Your task to perform on an android device: set an alarm Image 0: 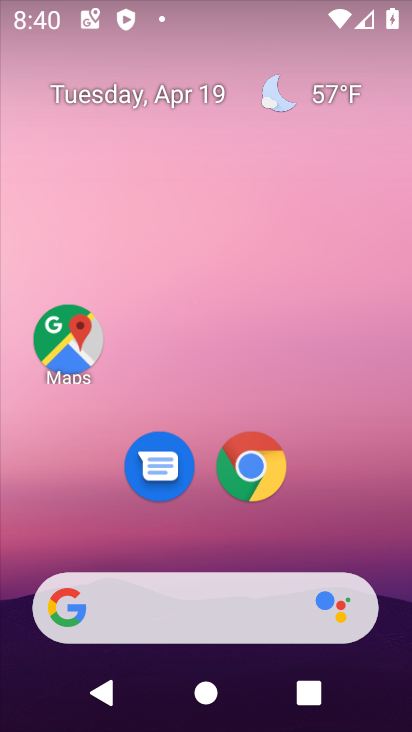
Step 0: drag from (207, 722) to (207, 90)
Your task to perform on an android device: set an alarm Image 1: 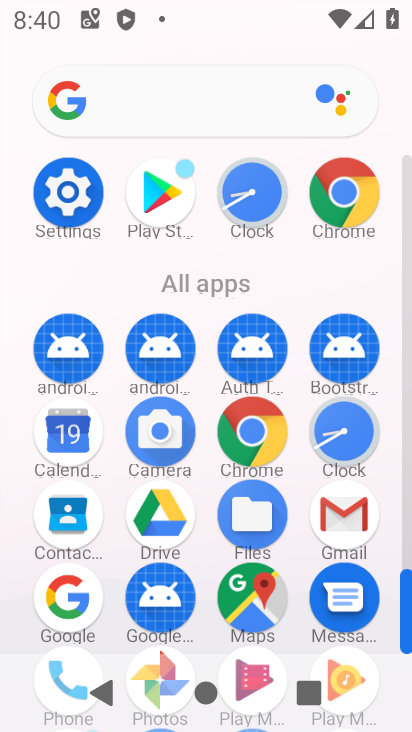
Step 1: click (341, 431)
Your task to perform on an android device: set an alarm Image 2: 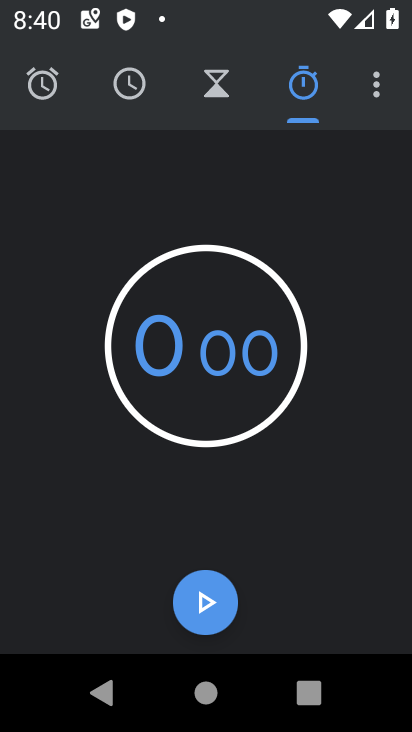
Step 2: click (37, 86)
Your task to perform on an android device: set an alarm Image 3: 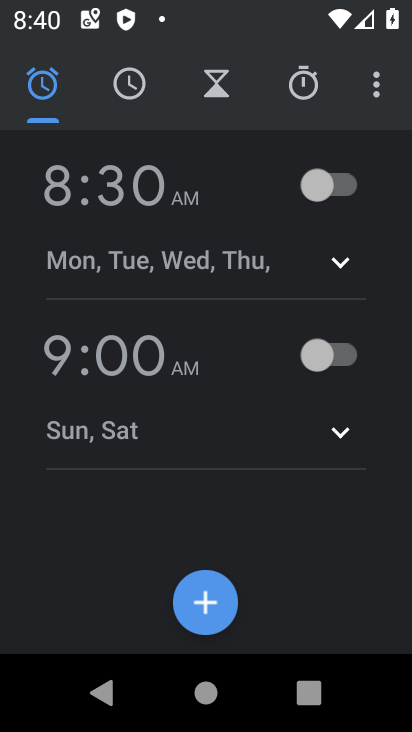
Step 3: click (203, 603)
Your task to perform on an android device: set an alarm Image 4: 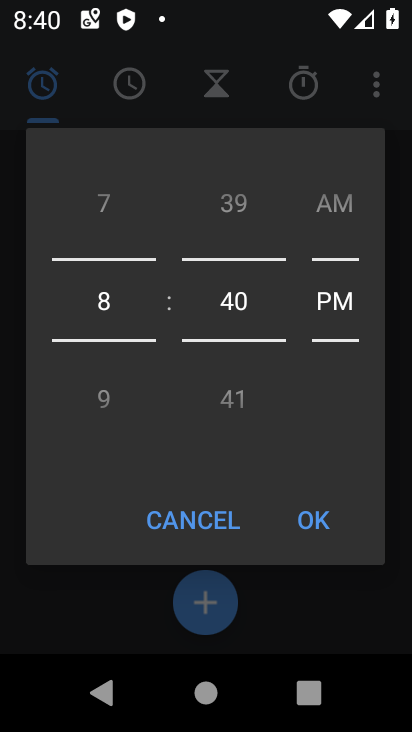
Step 4: drag from (106, 405) to (112, 115)
Your task to perform on an android device: set an alarm Image 5: 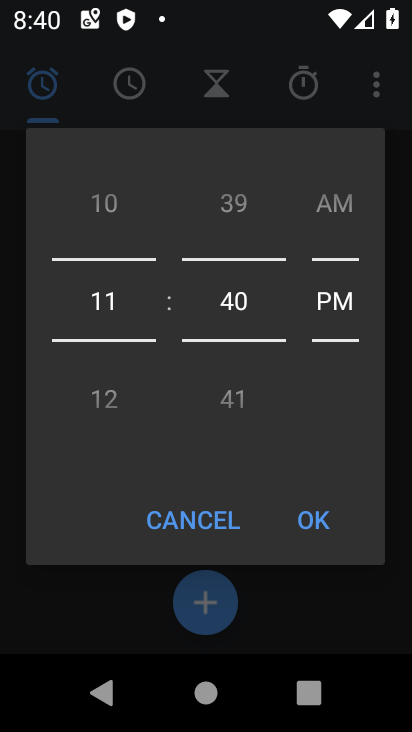
Step 5: drag from (237, 204) to (240, 421)
Your task to perform on an android device: set an alarm Image 6: 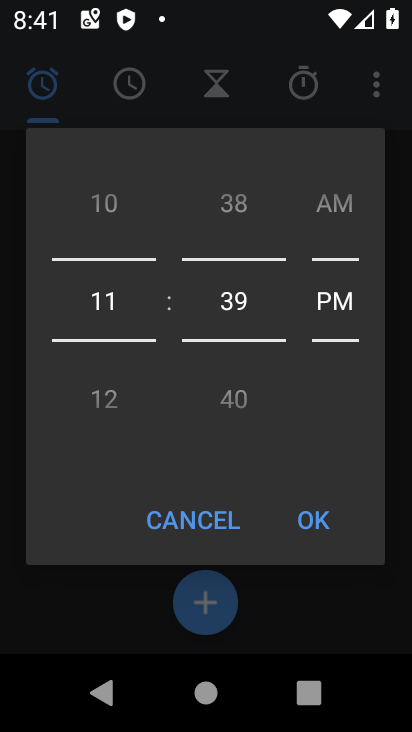
Step 6: click (317, 520)
Your task to perform on an android device: set an alarm Image 7: 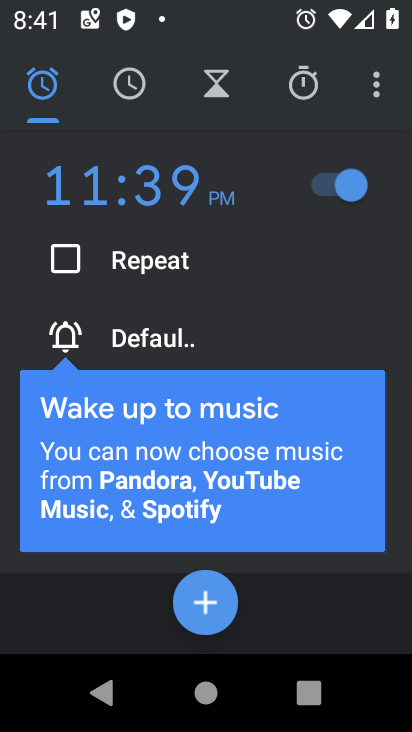
Step 7: task complete